Your task to perform on an android device: turn on bluetooth scan Image 0: 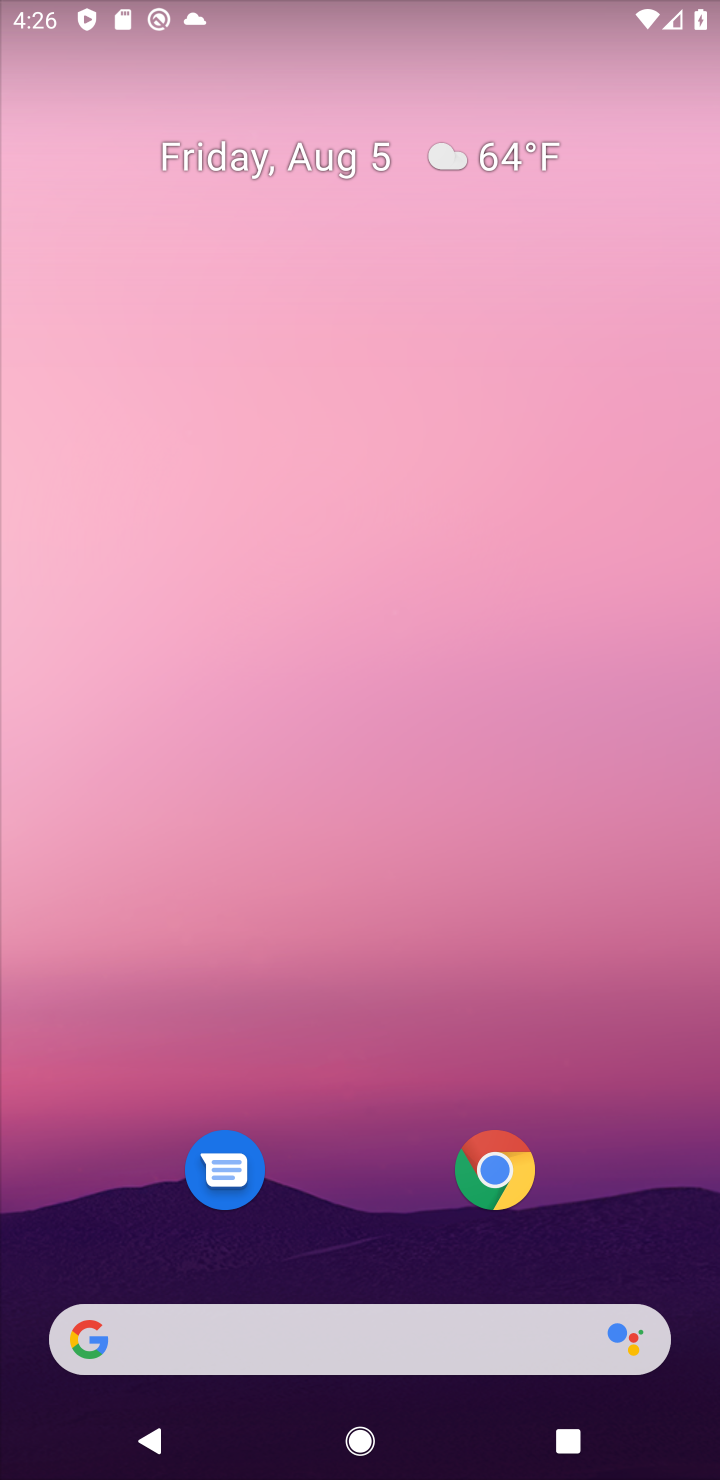
Step 0: press home button
Your task to perform on an android device: turn on bluetooth scan Image 1: 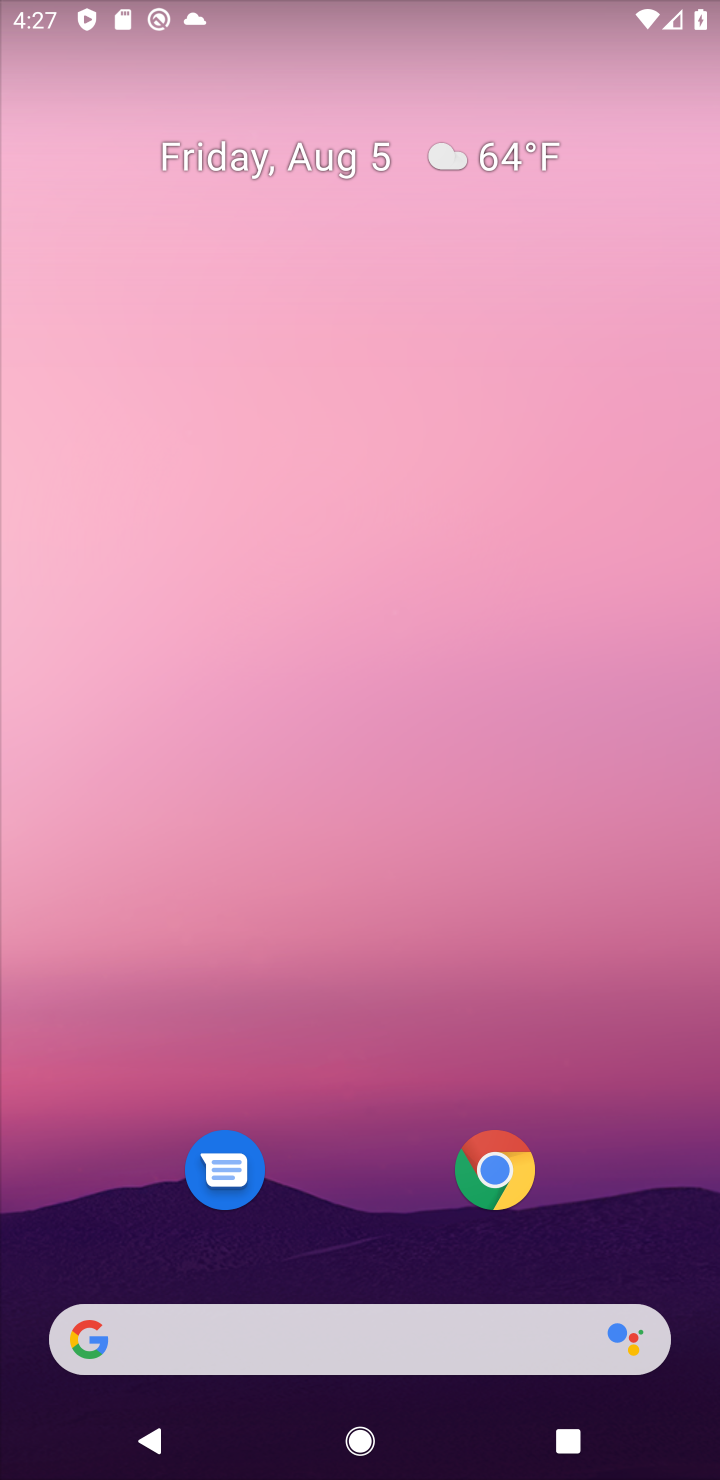
Step 1: drag from (339, 1241) to (371, 908)
Your task to perform on an android device: turn on bluetooth scan Image 2: 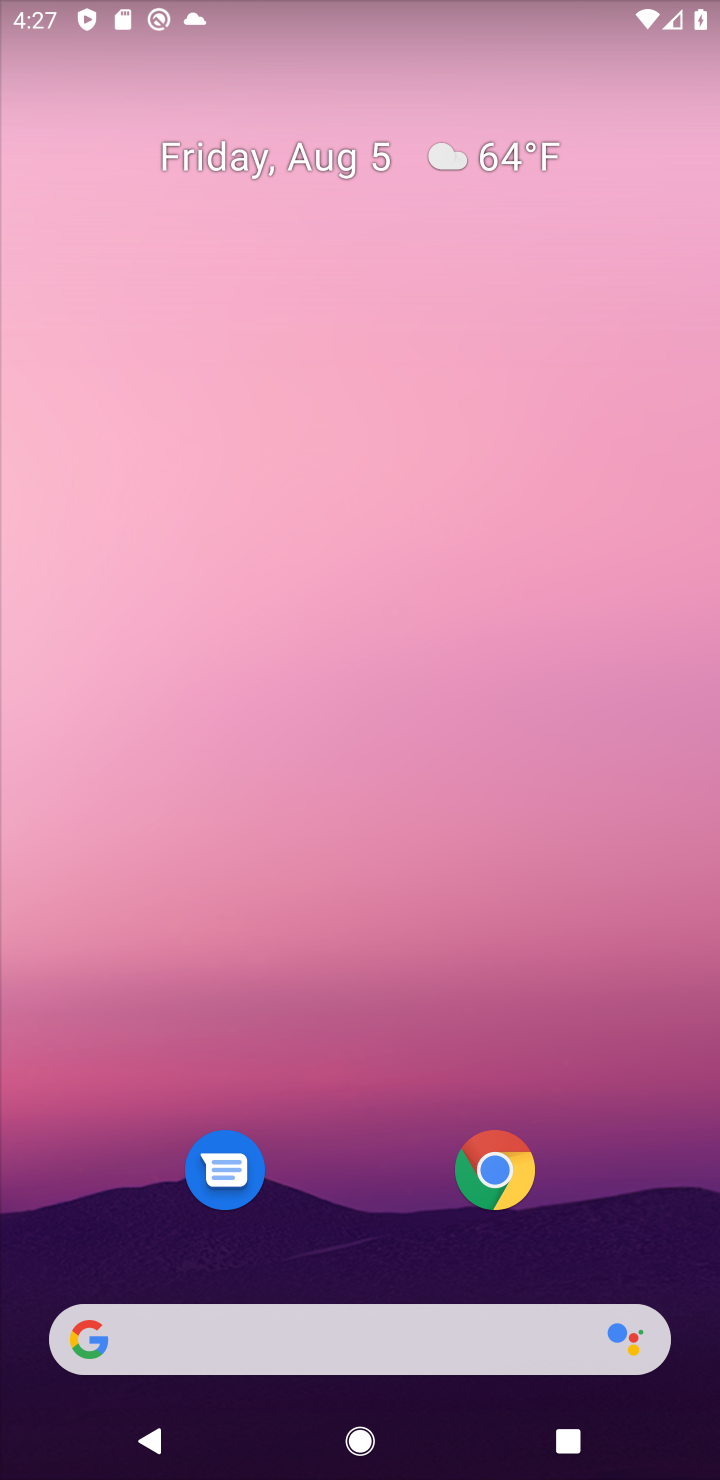
Step 2: drag from (385, 1258) to (340, 512)
Your task to perform on an android device: turn on bluetooth scan Image 3: 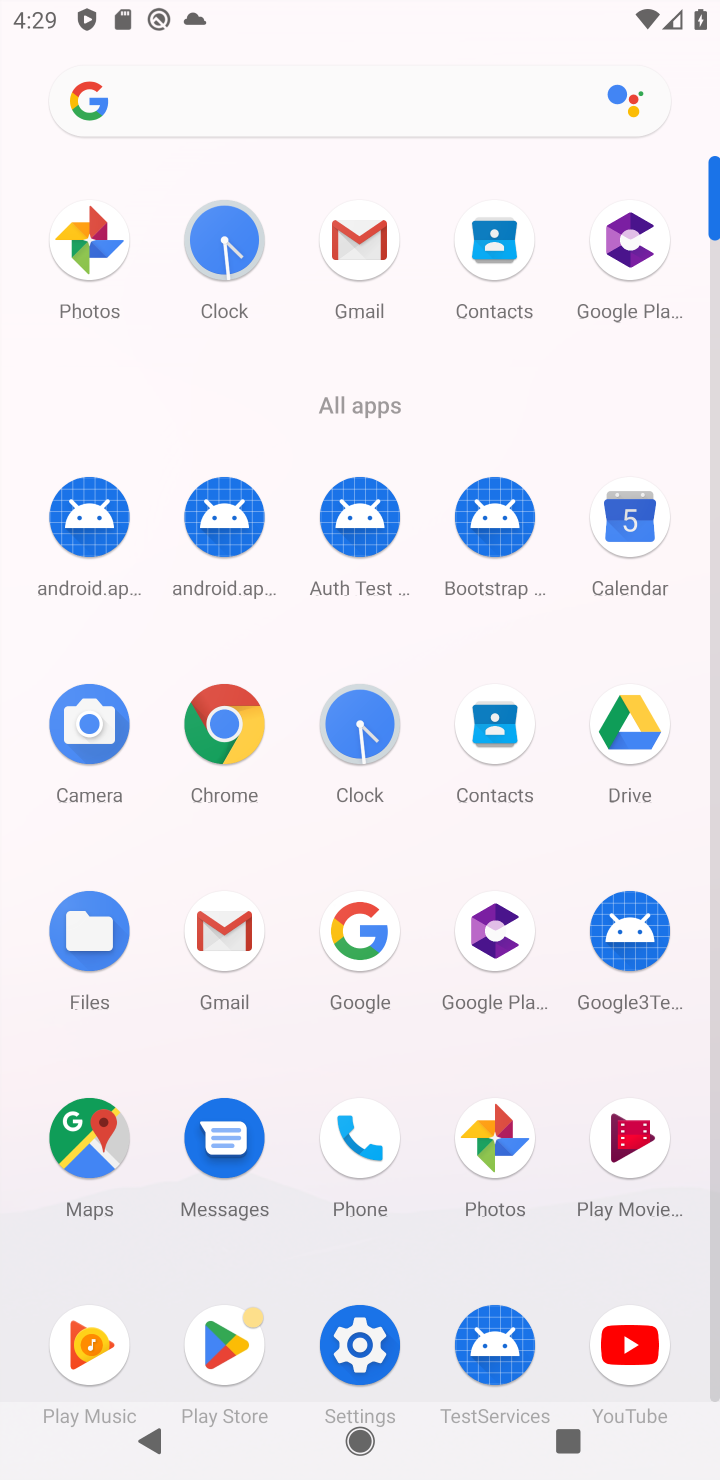
Step 3: press home button
Your task to perform on an android device: turn on bluetooth scan Image 4: 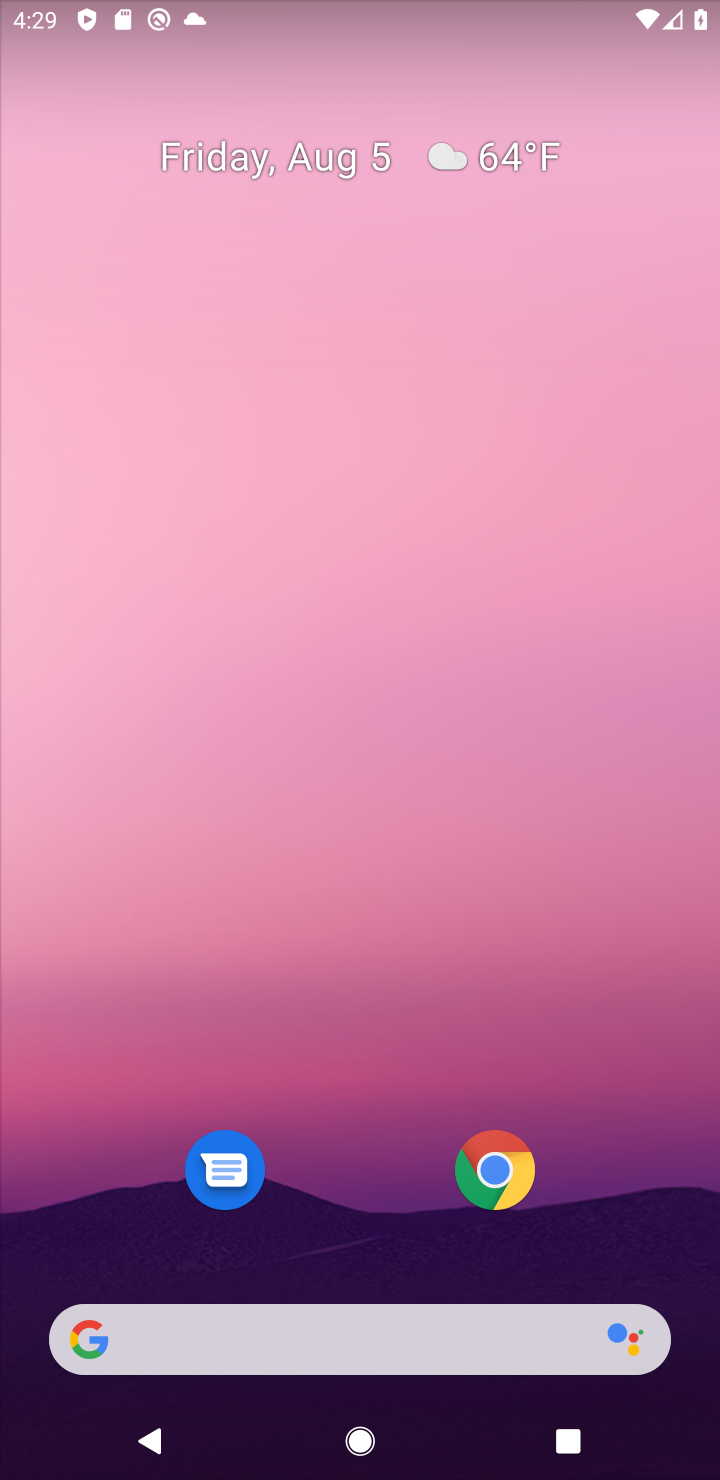
Step 4: drag from (386, 1088) to (458, 309)
Your task to perform on an android device: turn on bluetooth scan Image 5: 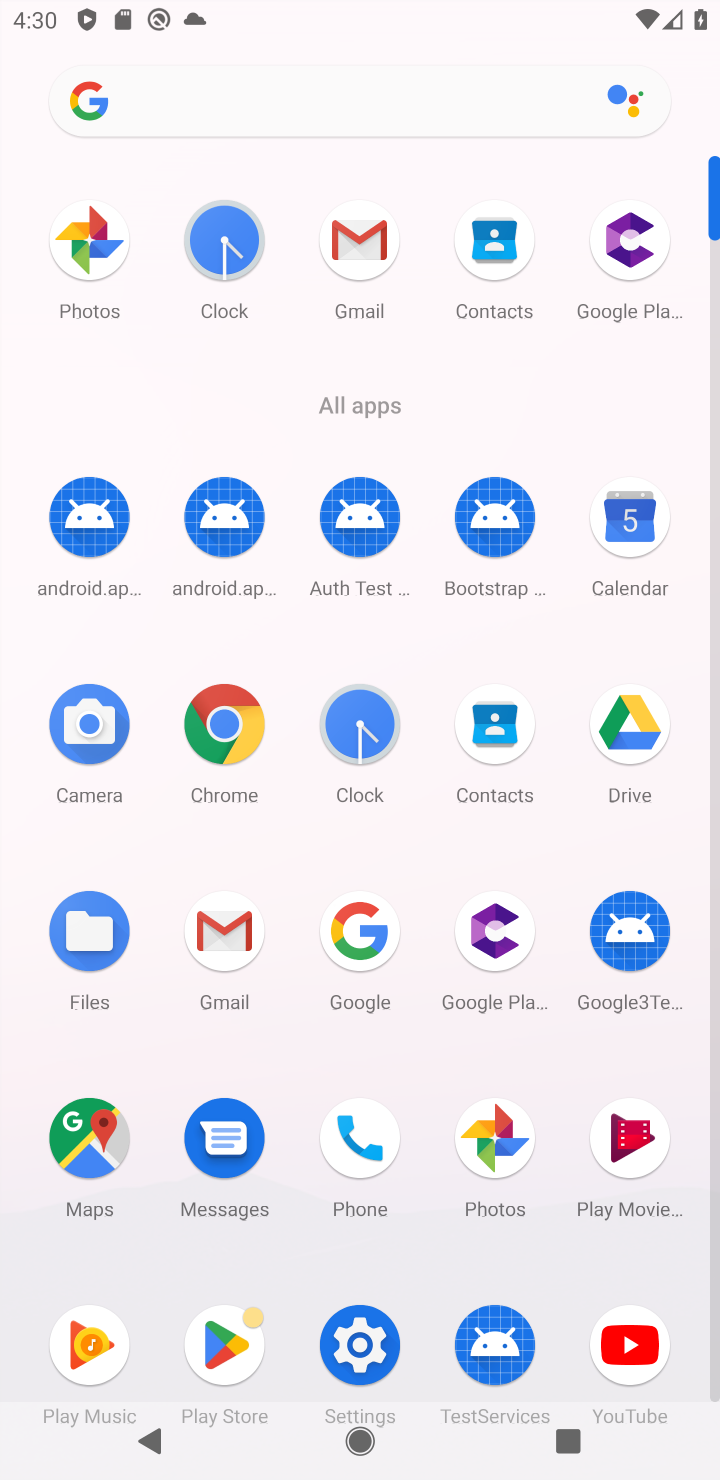
Step 5: click (377, 1352)
Your task to perform on an android device: turn on bluetooth scan Image 6: 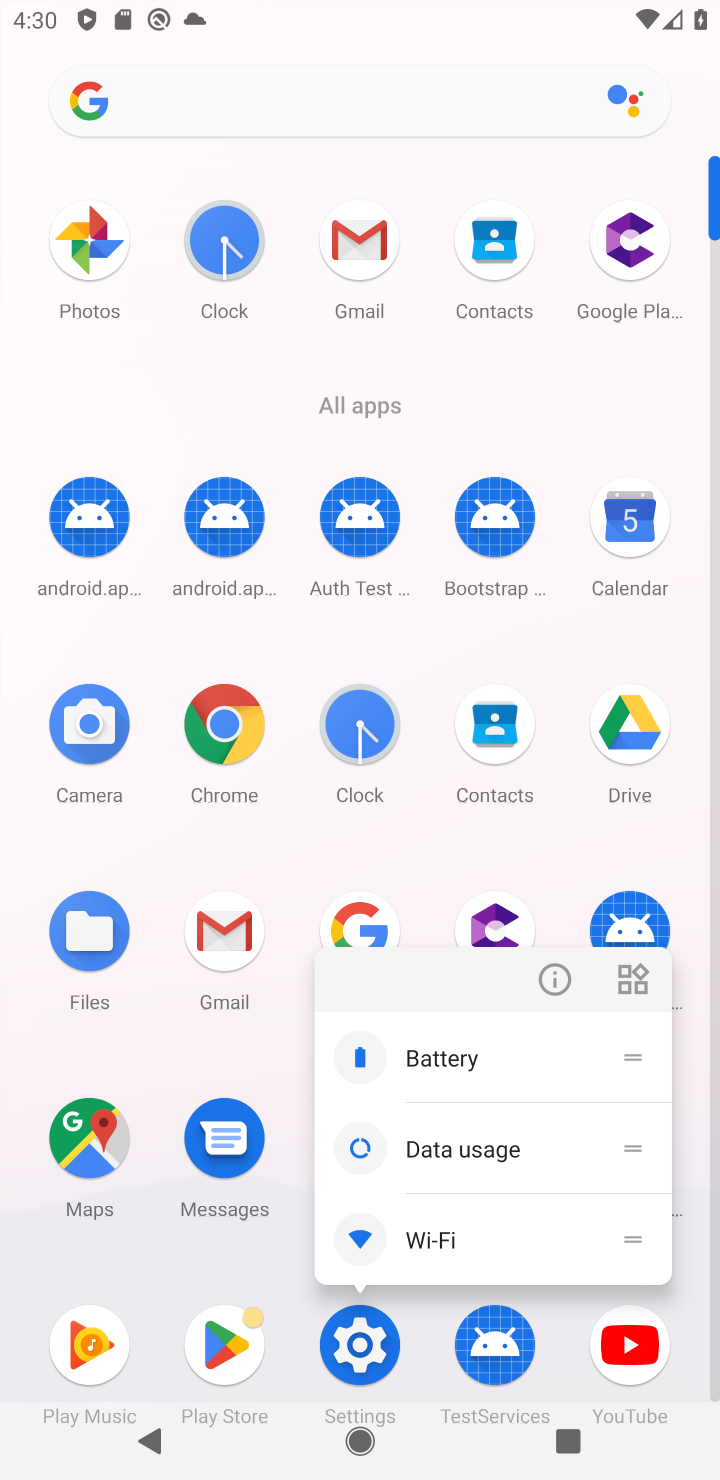
Step 6: click (365, 1358)
Your task to perform on an android device: turn on bluetooth scan Image 7: 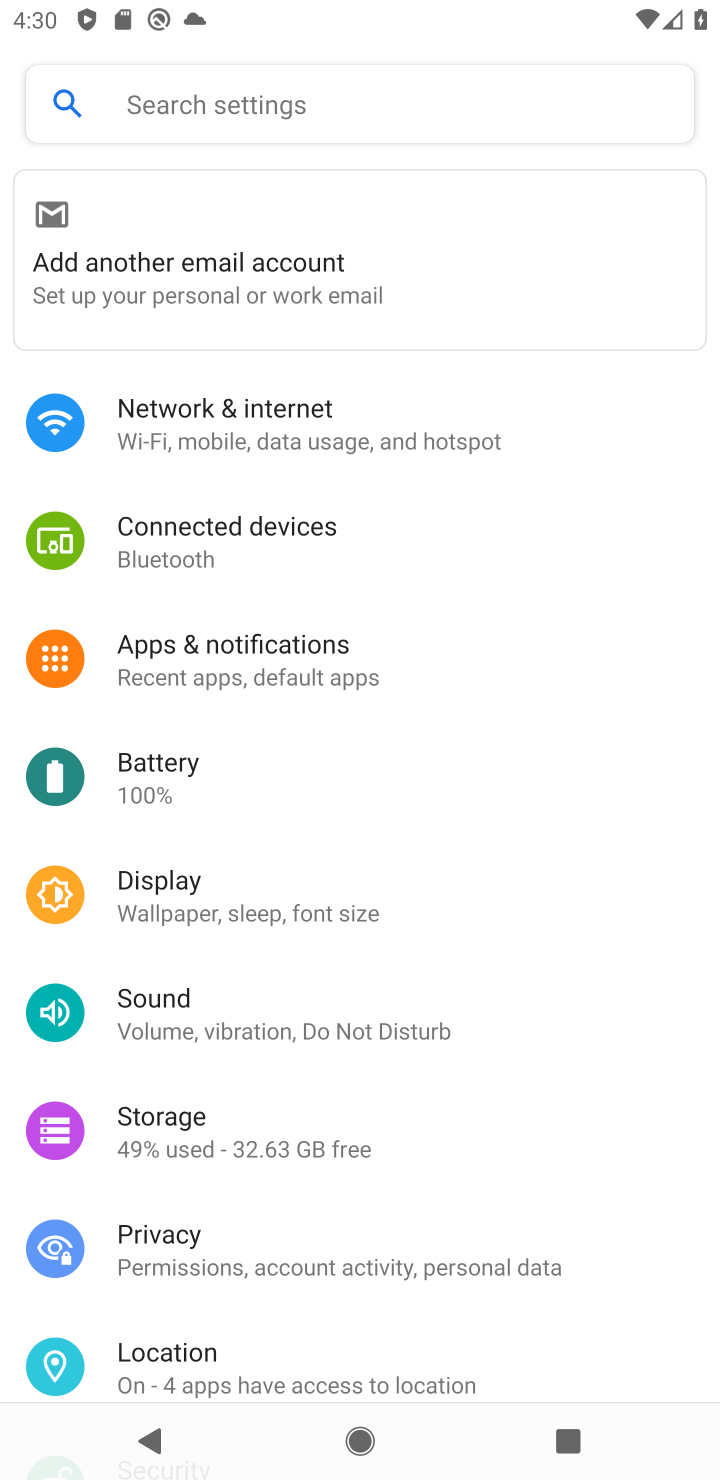
Step 7: click (157, 1358)
Your task to perform on an android device: turn on bluetooth scan Image 8: 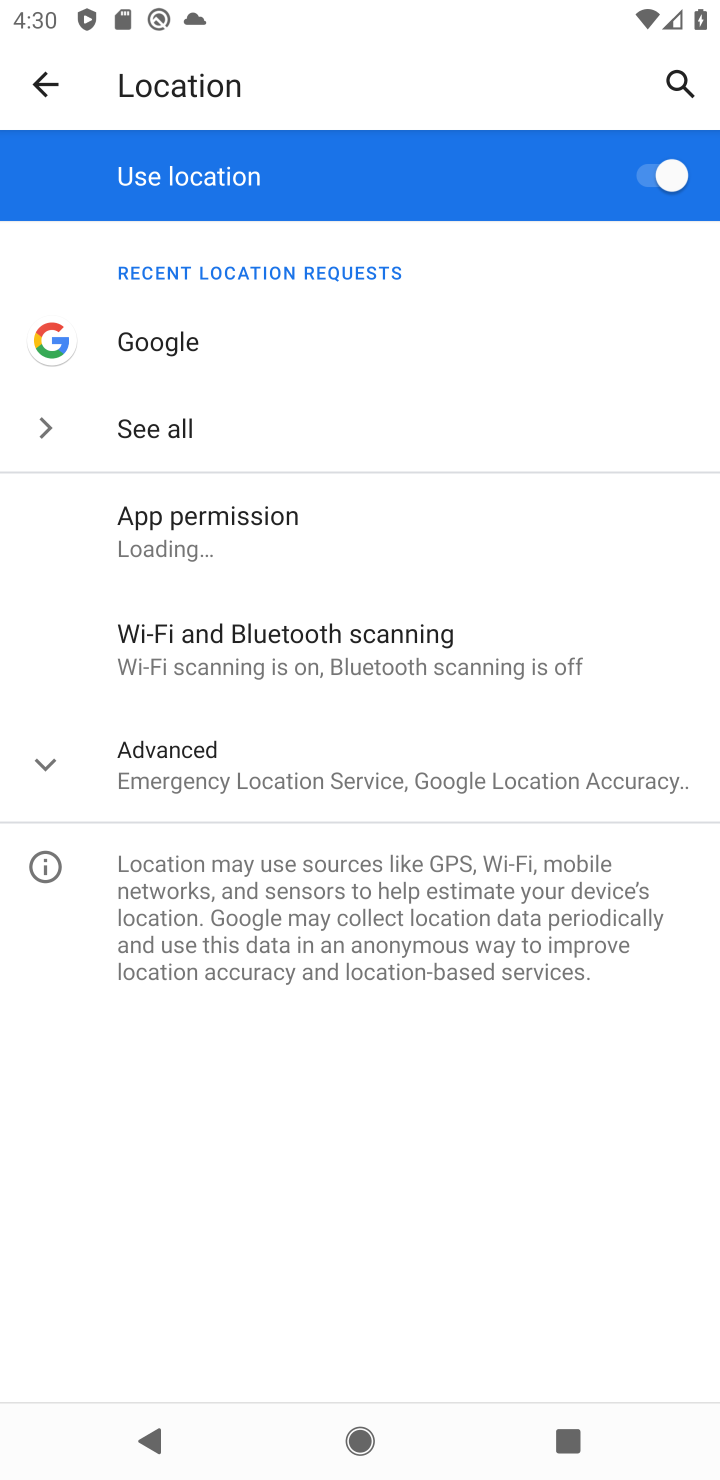
Step 8: click (275, 630)
Your task to perform on an android device: turn on bluetooth scan Image 9: 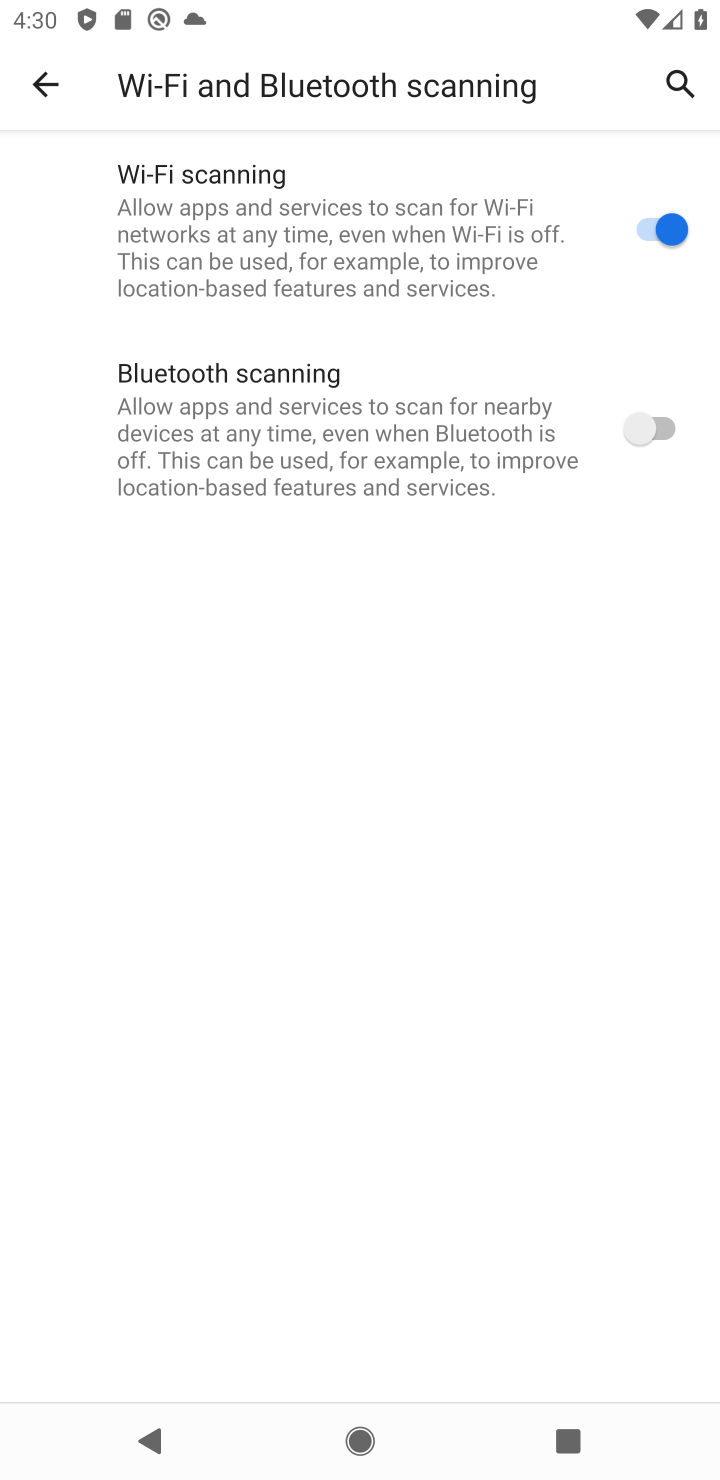
Step 9: click (647, 422)
Your task to perform on an android device: turn on bluetooth scan Image 10: 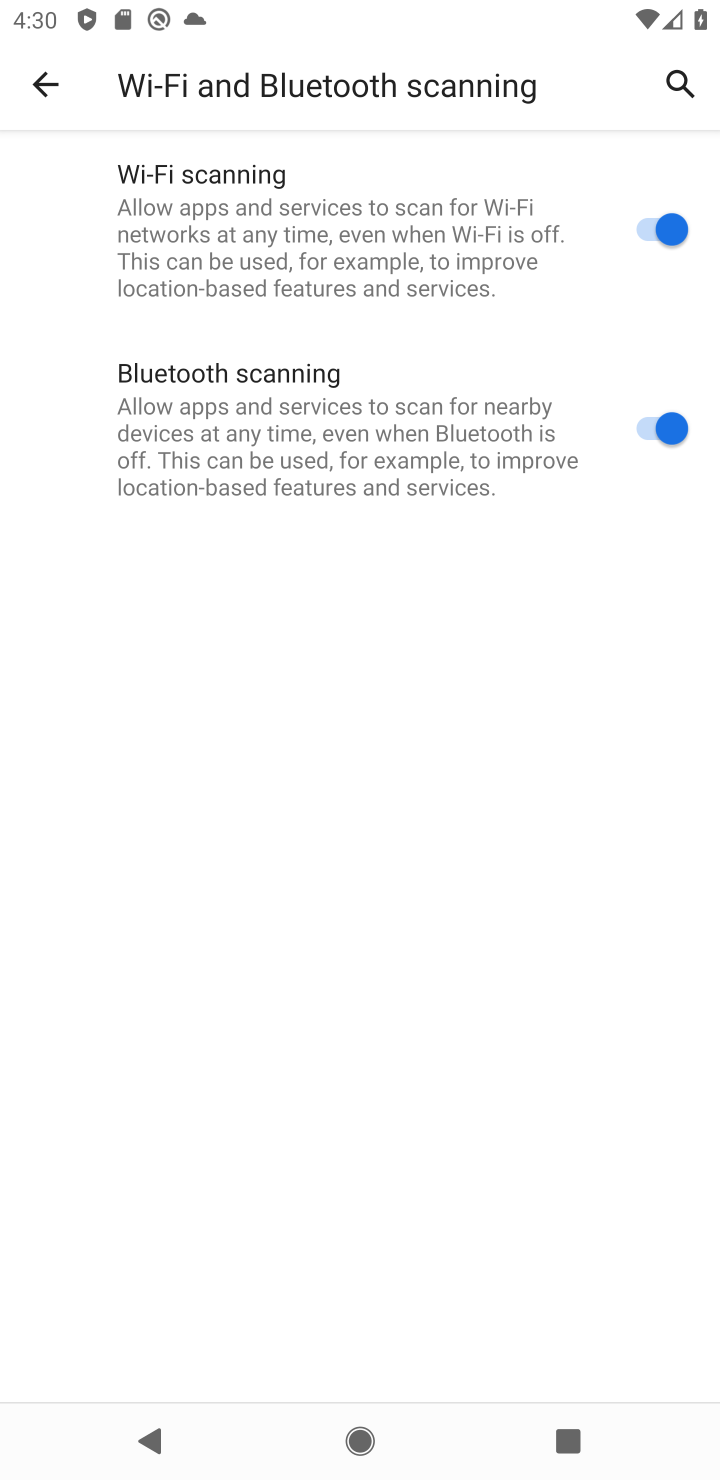
Step 10: task complete